Your task to perform on an android device: When is my next appointment? Image 0: 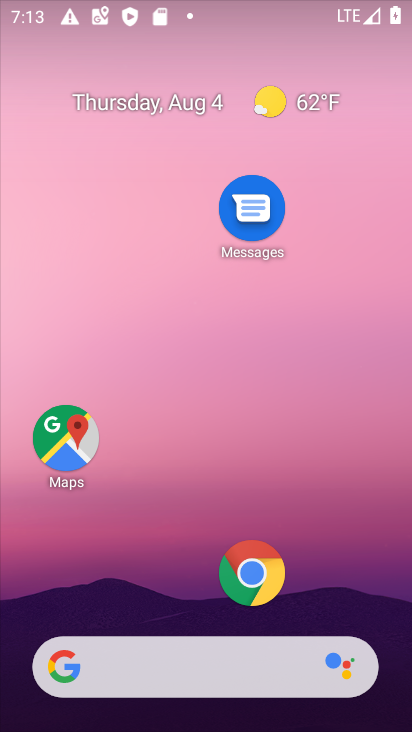
Step 0: drag from (169, 605) to (199, 142)
Your task to perform on an android device: When is my next appointment? Image 1: 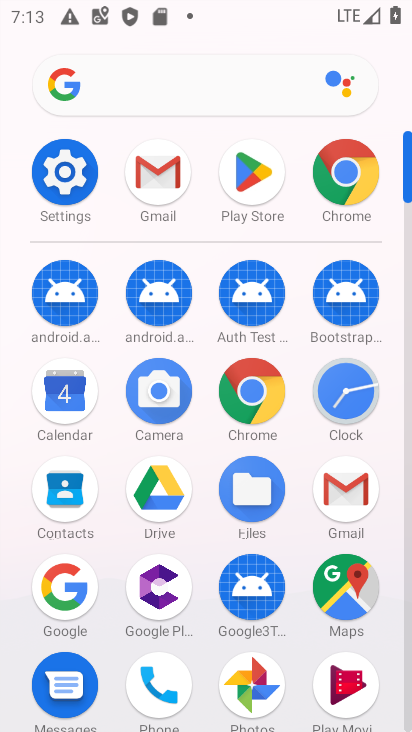
Step 1: click (65, 399)
Your task to perform on an android device: When is my next appointment? Image 2: 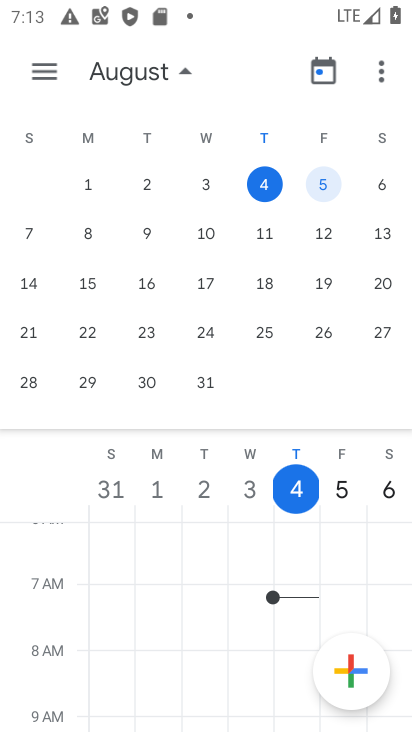
Step 2: click (45, 71)
Your task to perform on an android device: When is my next appointment? Image 3: 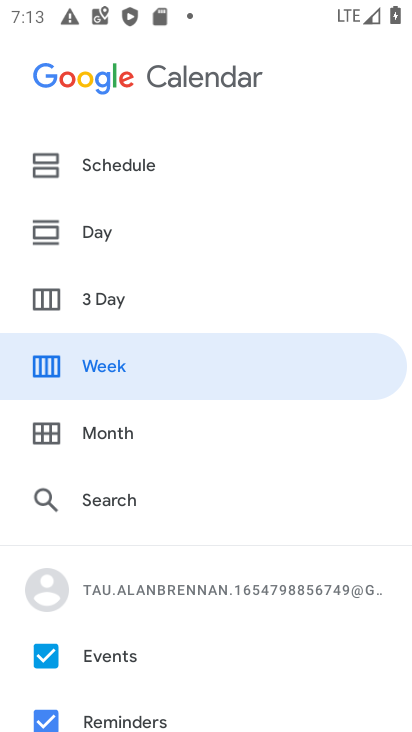
Step 3: click (99, 170)
Your task to perform on an android device: When is my next appointment? Image 4: 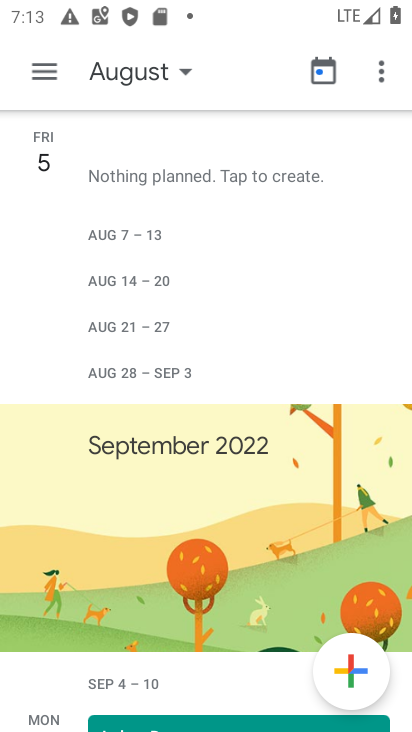
Step 4: task complete